Your task to perform on an android device: turn off smart reply in the gmail app Image 0: 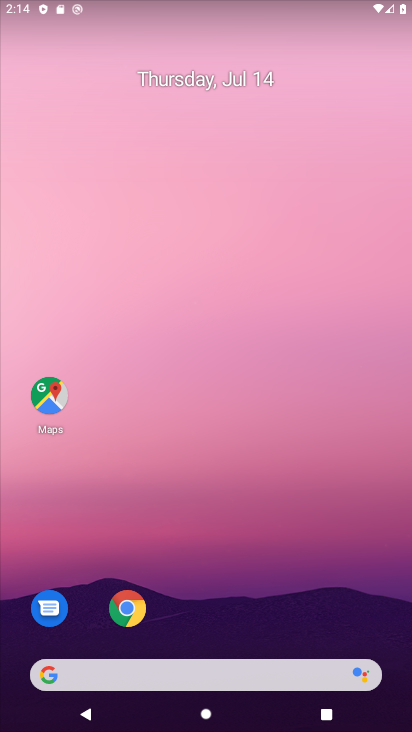
Step 0: drag from (217, 553) to (220, 167)
Your task to perform on an android device: turn off smart reply in the gmail app Image 1: 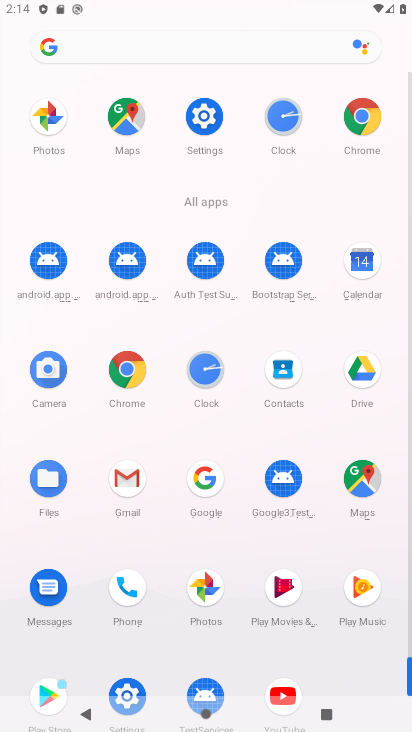
Step 1: click (130, 480)
Your task to perform on an android device: turn off smart reply in the gmail app Image 2: 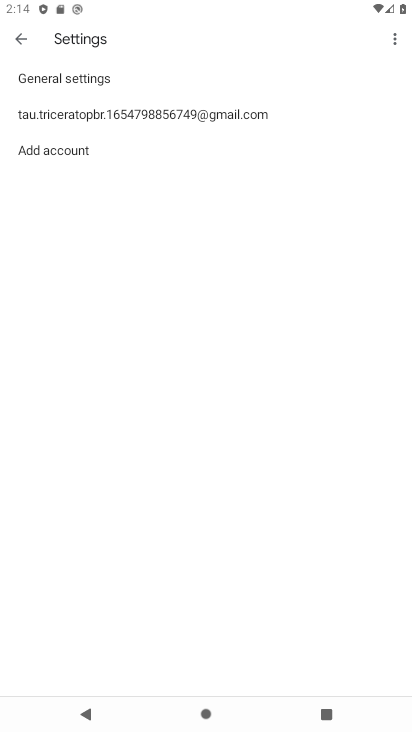
Step 2: click (212, 123)
Your task to perform on an android device: turn off smart reply in the gmail app Image 3: 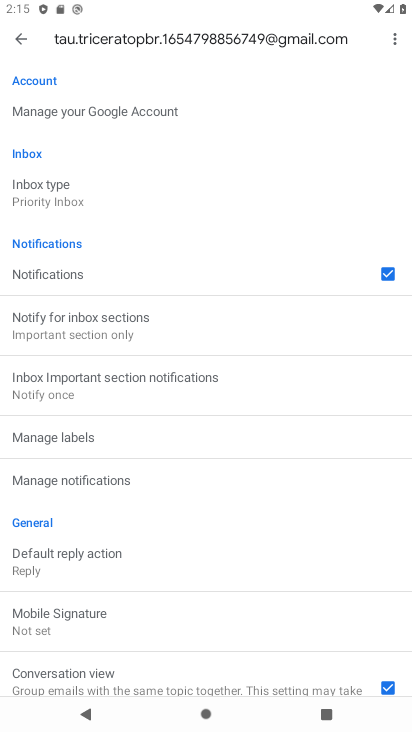
Step 3: drag from (128, 670) to (203, 274)
Your task to perform on an android device: turn off smart reply in the gmail app Image 4: 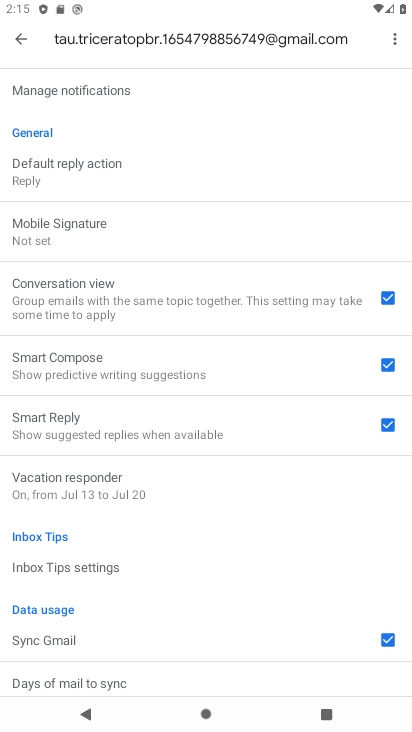
Step 4: drag from (135, 631) to (195, 426)
Your task to perform on an android device: turn off smart reply in the gmail app Image 5: 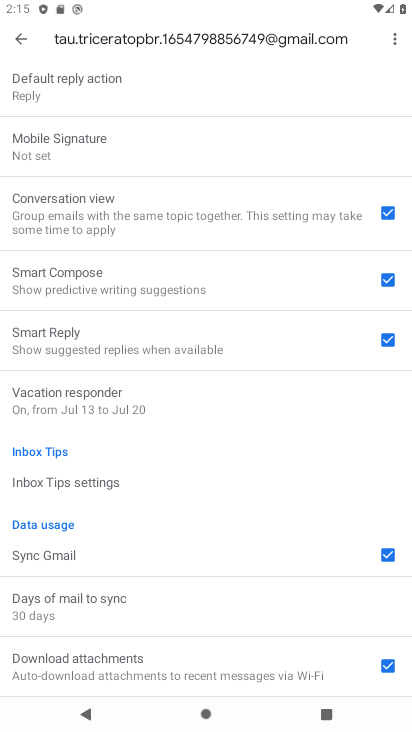
Step 5: click (392, 336)
Your task to perform on an android device: turn off smart reply in the gmail app Image 6: 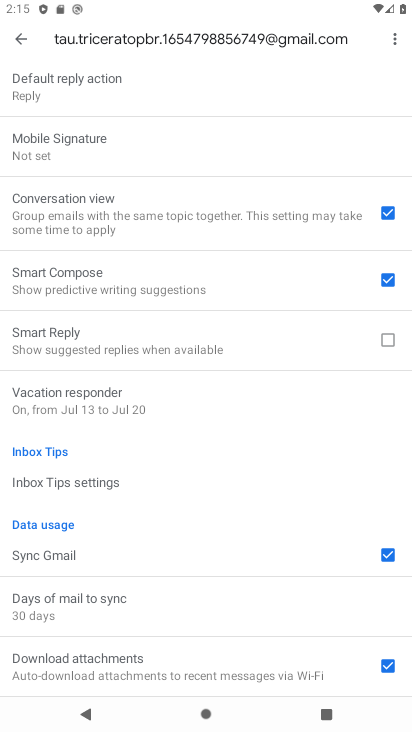
Step 6: task complete